Your task to perform on an android device: open app "Viber Messenger" (install if not already installed) and go to login screen Image 0: 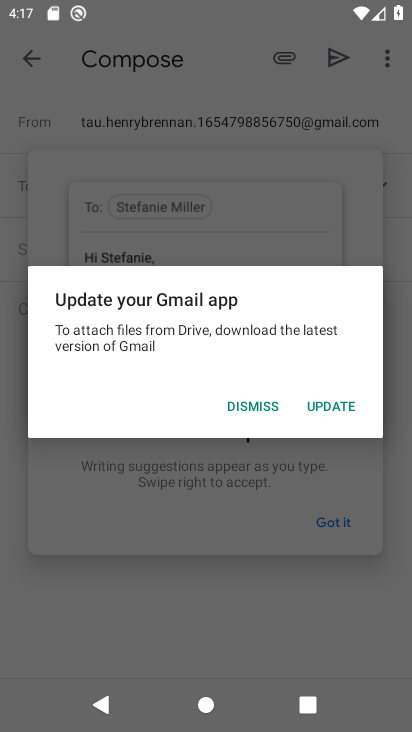
Step 0: press home button
Your task to perform on an android device: open app "Viber Messenger" (install if not already installed) and go to login screen Image 1: 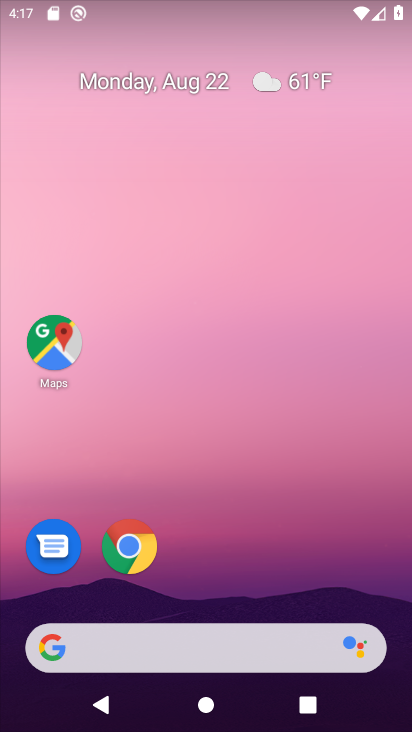
Step 1: drag from (372, 596) to (338, 117)
Your task to perform on an android device: open app "Viber Messenger" (install if not already installed) and go to login screen Image 2: 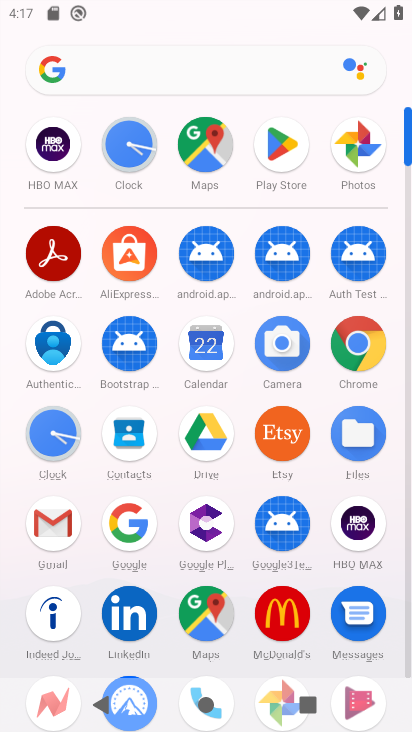
Step 2: drag from (318, 570) to (309, 378)
Your task to perform on an android device: open app "Viber Messenger" (install if not already installed) and go to login screen Image 3: 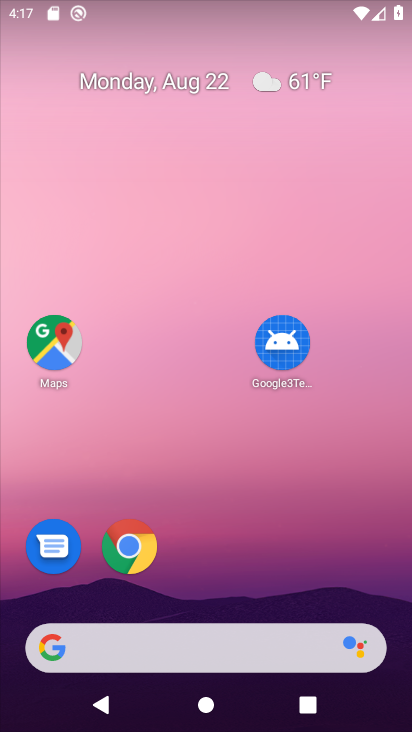
Step 3: drag from (222, 535) to (206, 96)
Your task to perform on an android device: open app "Viber Messenger" (install if not already installed) and go to login screen Image 4: 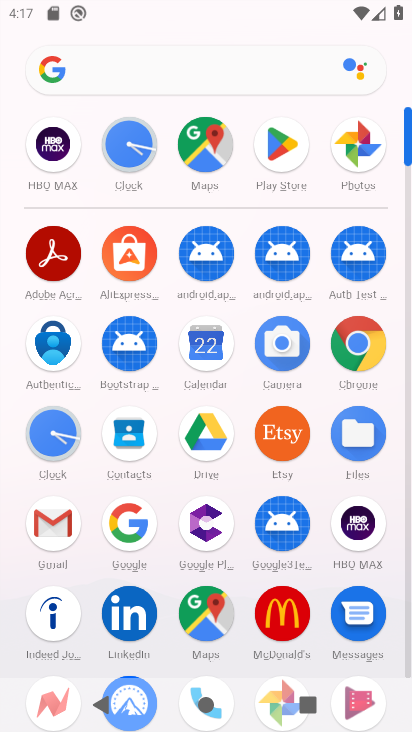
Step 4: drag from (163, 541) to (154, 190)
Your task to perform on an android device: open app "Viber Messenger" (install if not already installed) and go to login screen Image 5: 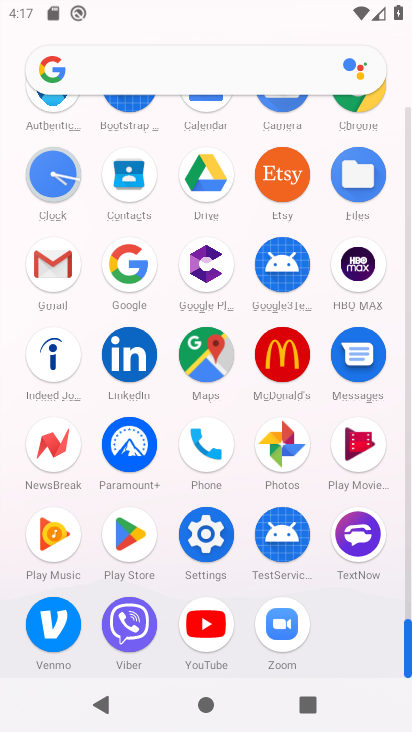
Step 5: click (128, 534)
Your task to perform on an android device: open app "Viber Messenger" (install if not already installed) and go to login screen Image 6: 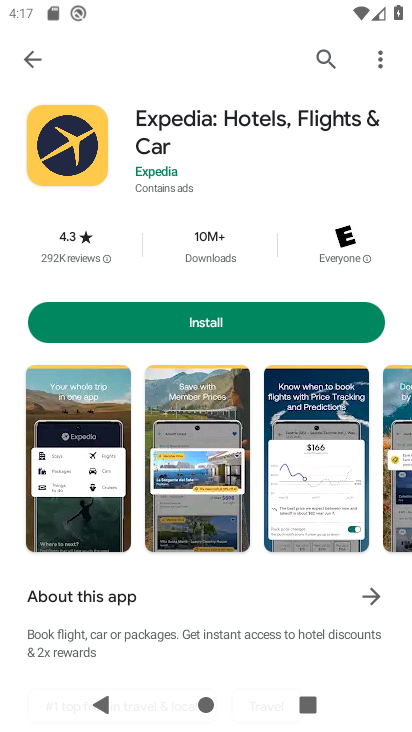
Step 6: click (322, 52)
Your task to perform on an android device: open app "Viber Messenger" (install if not already installed) and go to login screen Image 7: 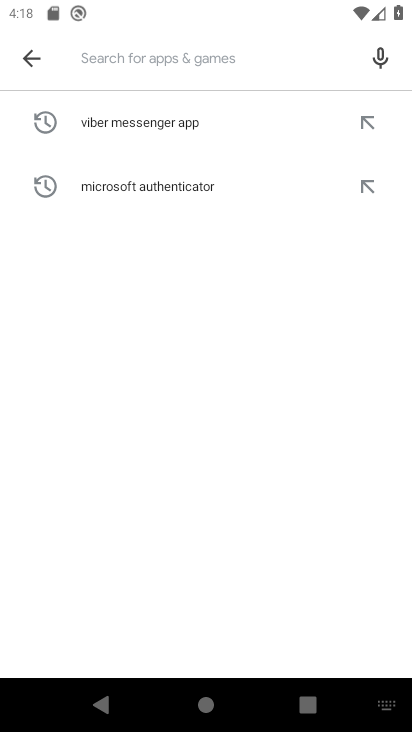
Step 7: type "Viber Messenger"
Your task to perform on an android device: open app "Viber Messenger" (install if not already installed) and go to login screen Image 8: 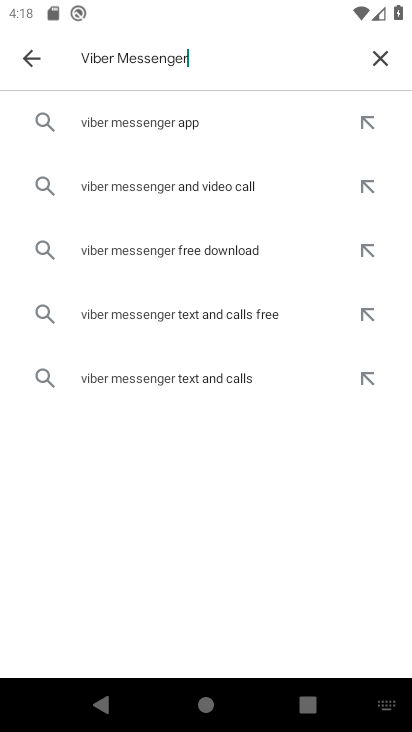
Step 8: click (128, 127)
Your task to perform on an android device: open app "Viber Messenger" (install if not already installed) and go to login screen Image 9: 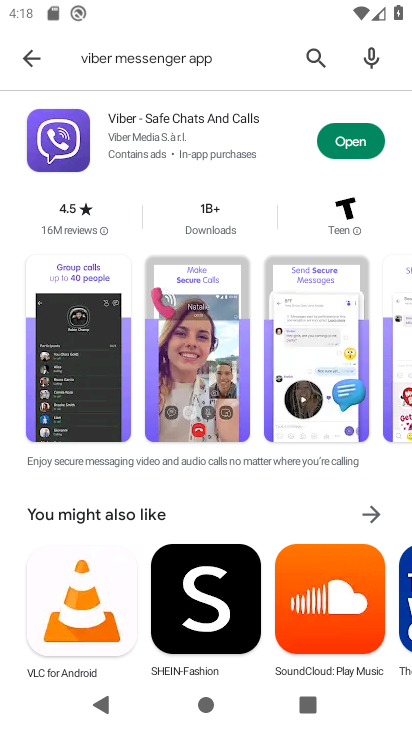
Step 9: click (128, 127)
Your task to perform on an android device: open app "Viber Messenger" (install if not already installed) and go to login screen Image 10: 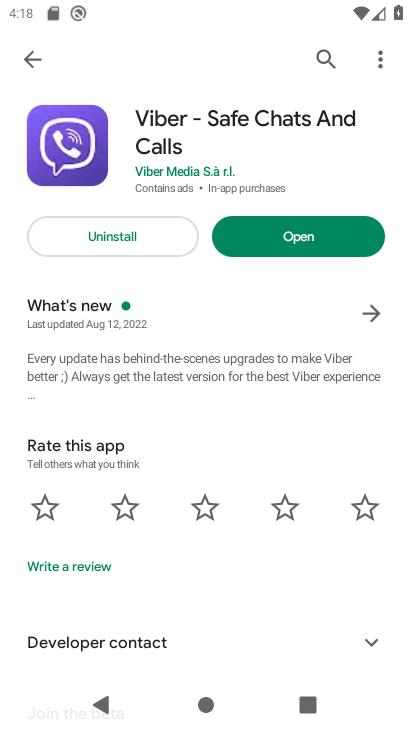
Step 10: click (297, 236)
Your task to perform on an android device: open app "Viber Messenger" (install if not already installed) and go to login screen Image 11: 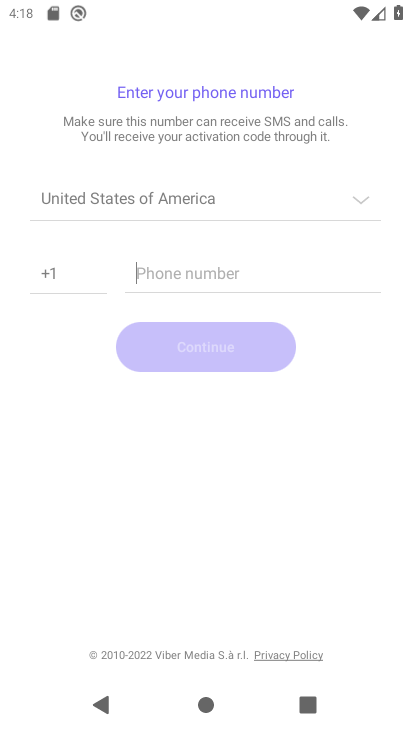
Step 11: task complete